Your task to perform on an android device: turn on translation in the chrome app Image 0: 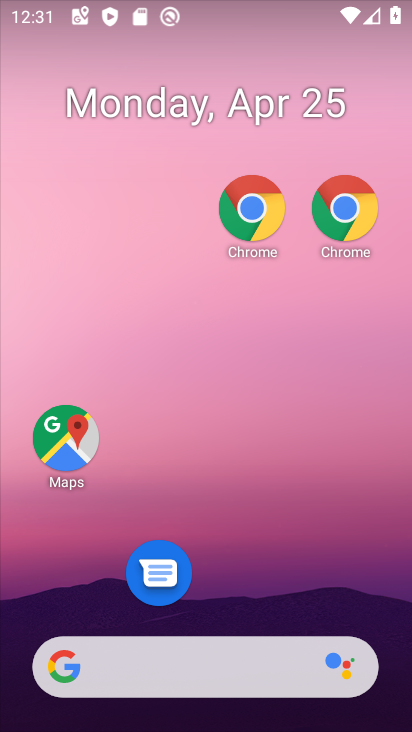
Step 0: drag from (287, 26) to (255, 4)
Your task to perform on an android device: turn on translation in the chrome app Image 1: 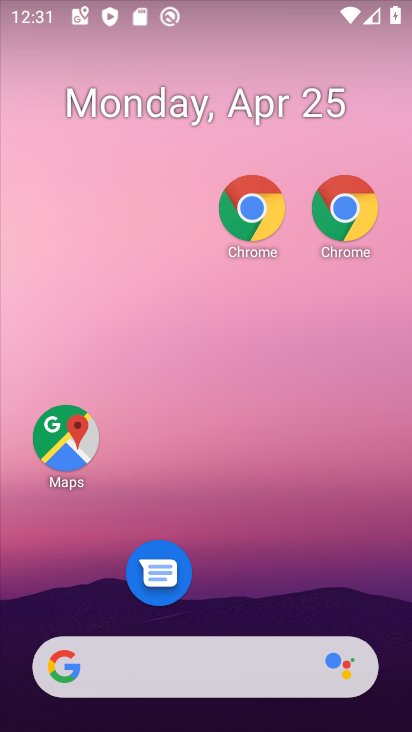
Step 1: drag from (299, 573) to (161, 94)
Your task to perform on an android device: turn on translation in the chrome app Image 2: 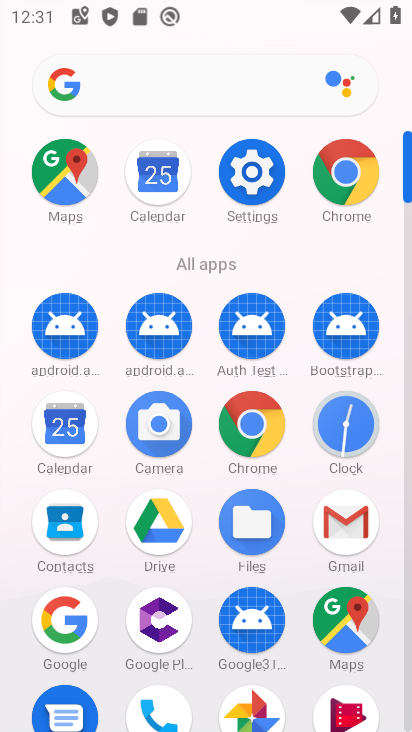
Step 2: click (342, 178)
Your task to perform on an android device: turn on translation in the chrome app Image 3: 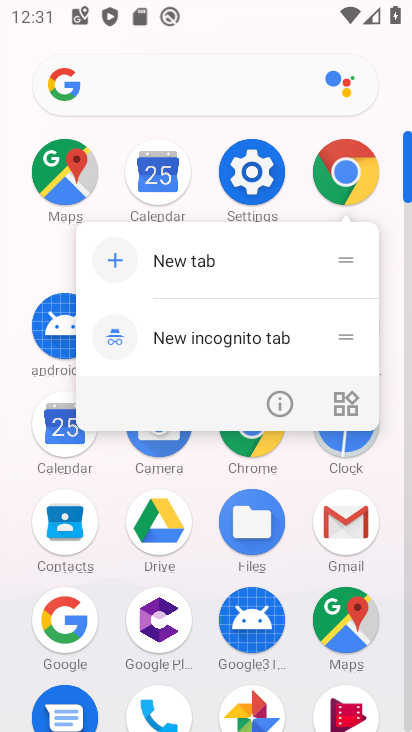
Step 3: click (153, 263)
Your task to perform on an android device: turn on translation in the chrome app Image 4: 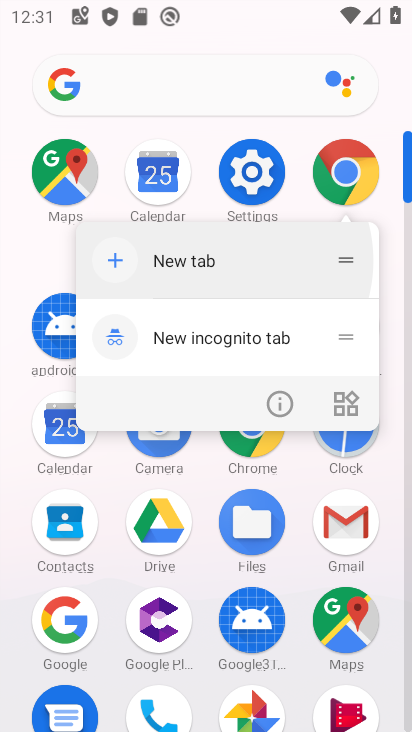
Step 4: click (159, 267)
Your task to perform on an android device: turn on translation in the chrome app Image 5: 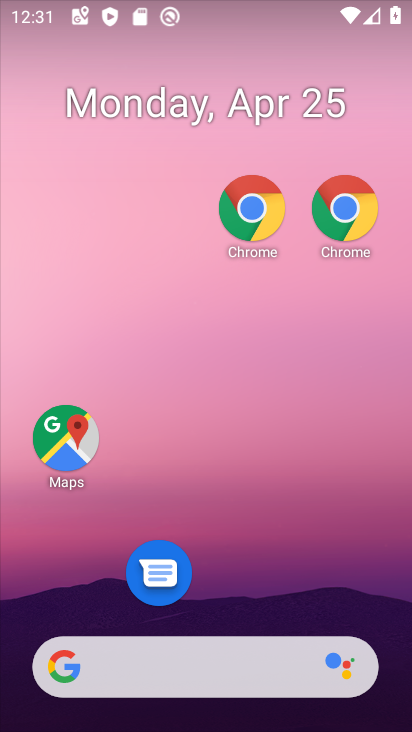
Step 5: drag from (275, 592) to (182, 158)
Your task to perform on an android device: turn on translation in the chrome app Image 6: 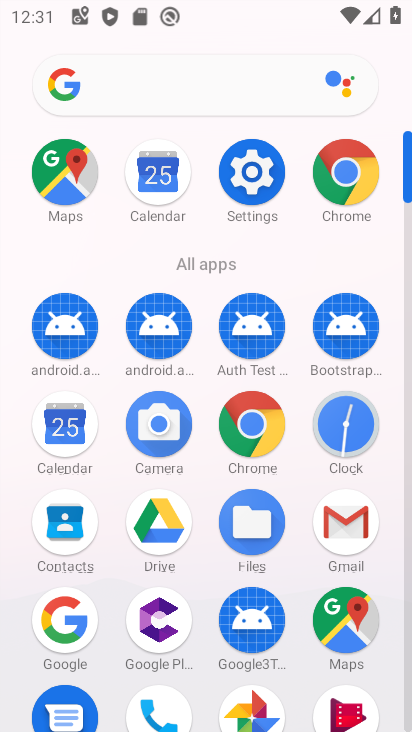
Step 6: click (344, 177)
Your task to perform on an android device: turn on translation in the chrome app Image 7: 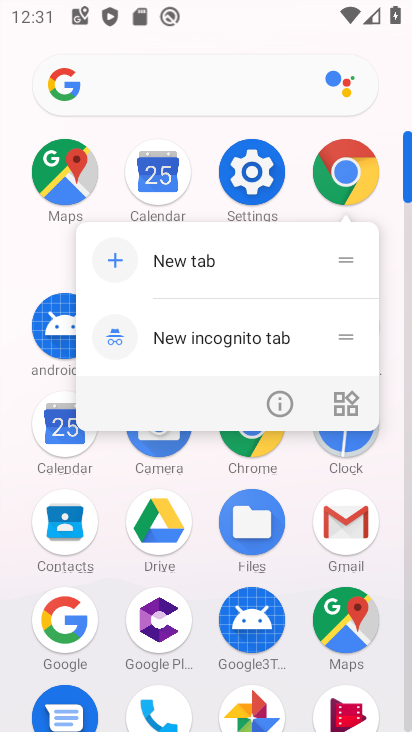
Step 7: click (344, 177)
Your task to perform on an android device: turn on translation in the chrome app Image 8: 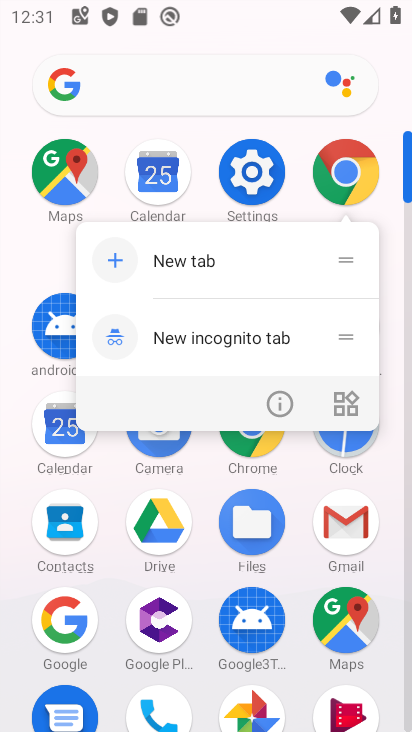
Step 8: click (345, 177)
Your task to perform on an android device: turn on translation in the chrome app Image 9: 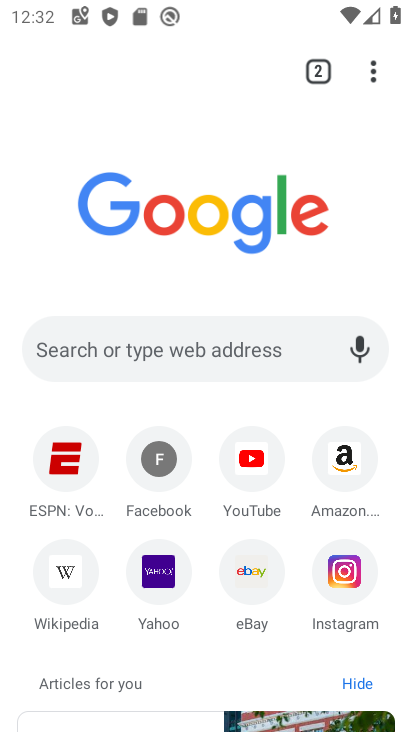
Step 9: drag from (370, 64) to (115, 607)
Your task to perform on an android device: turn on translation in the chrome app Image 10: 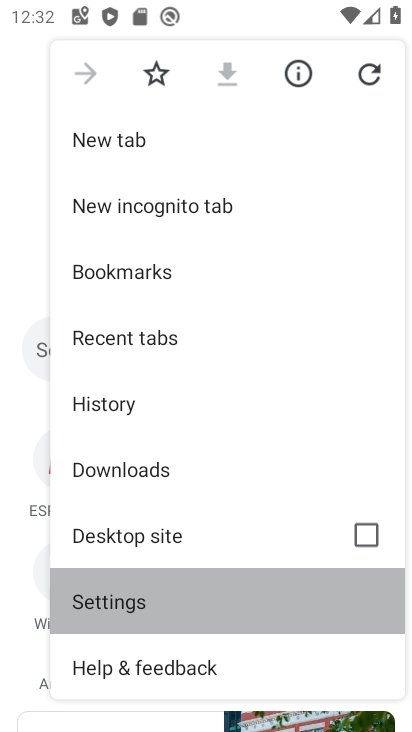
Step 10: click (125, 600)
Your task to perform on an android device: turn on translation in the chrome app Image 11: 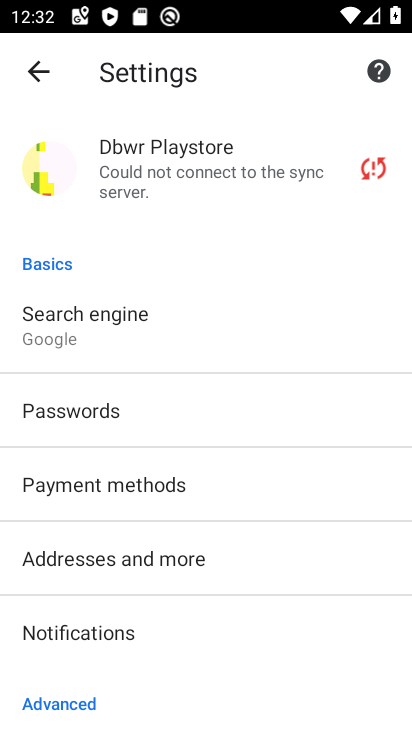
Step 11: drag from (179, 550) to (181, 137)
Your task to perform on an android device: turn on translation in the chrome app Image 12: 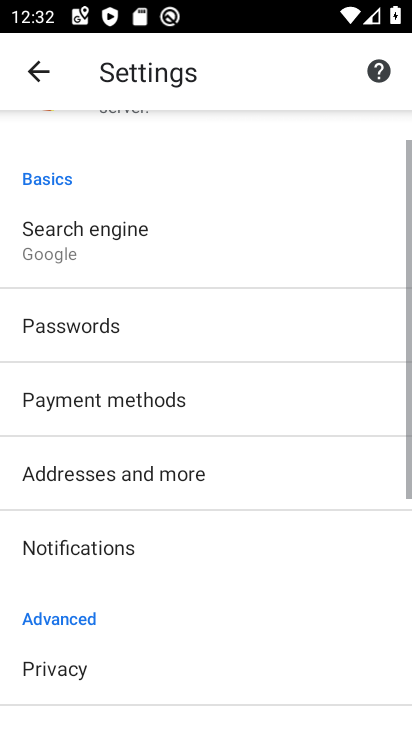
Step 12: drag from (186, 339) to (172, 119)
Your task to perform on an android device: turn on translation in the chrome app Image 13: 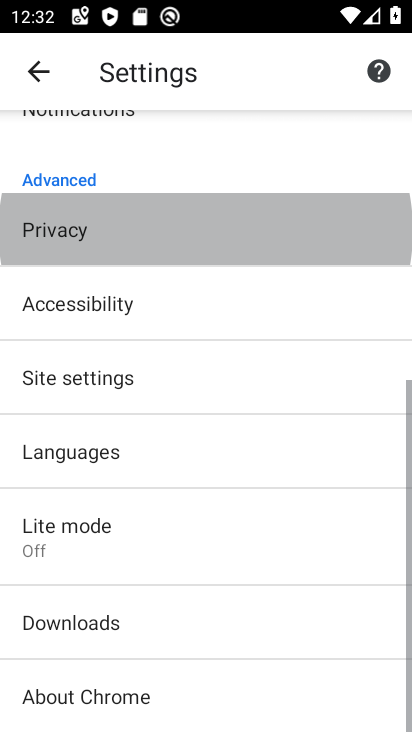
Step 13: drag from (152, 269) to (158, 61)
Your task to perform on an android device: turn on translation in the chrome app Image 14: 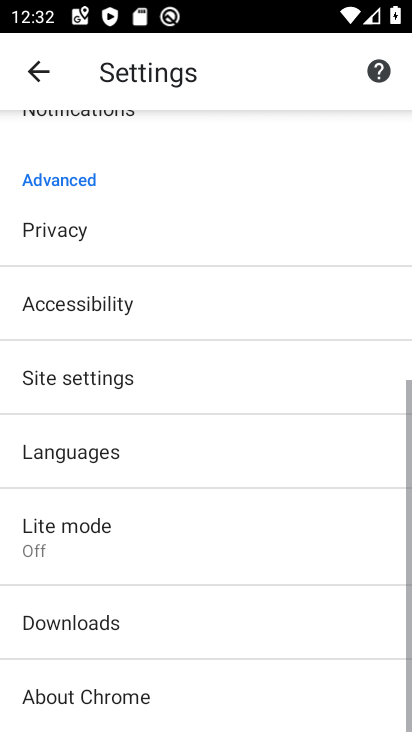
Step 14: drag from (100, 498) to (216, 50)
Your task to perform on an android device: turn on translation in the chrome app Image 15: 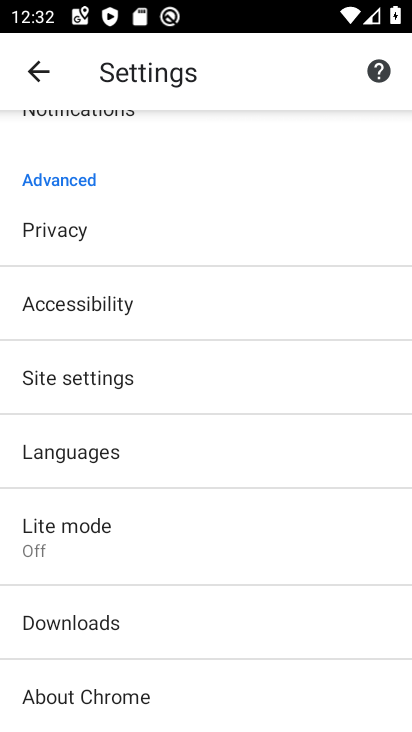
Step 15: click (62, 451)
Your task to perform on an android device: turn on translation in the chrome app Image 16: 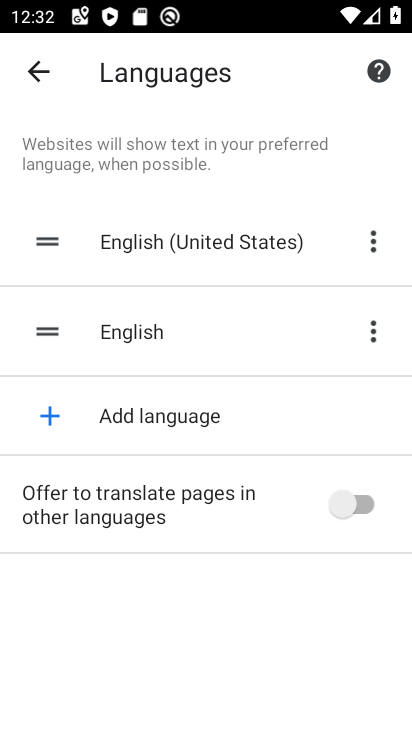
Step 16: click (70, 454)
Your task to perform on an android device: turn on translation in the chrome app Image 17: 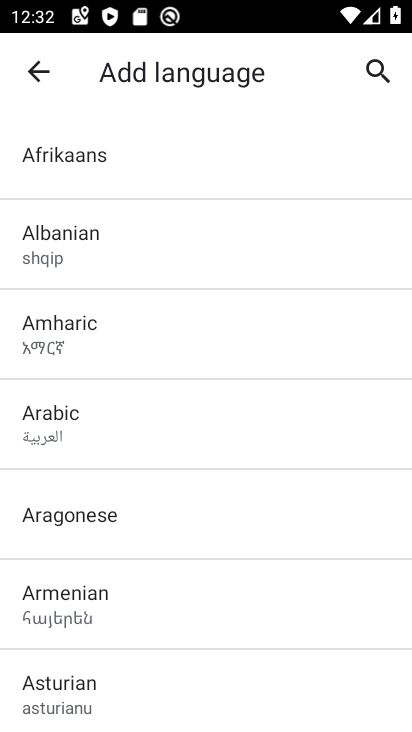
Step 17: click (31, 67)
Your task to perform on an android device: turn on translation in the chrome app Image 18: 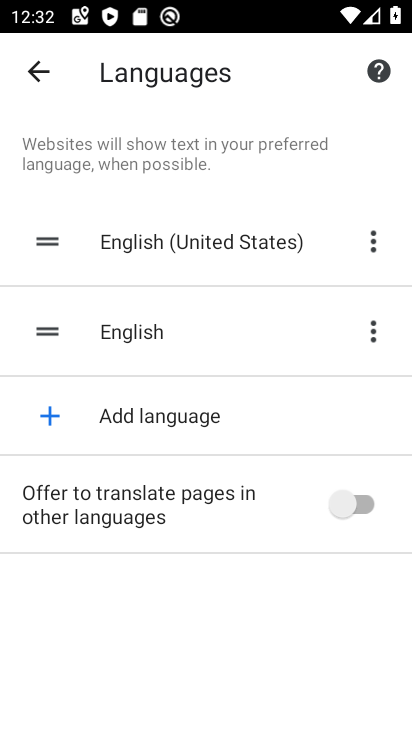
Step 18: click (35, 75)
Your task to perform on an android device: turn on translation in the chrome app Image 19: 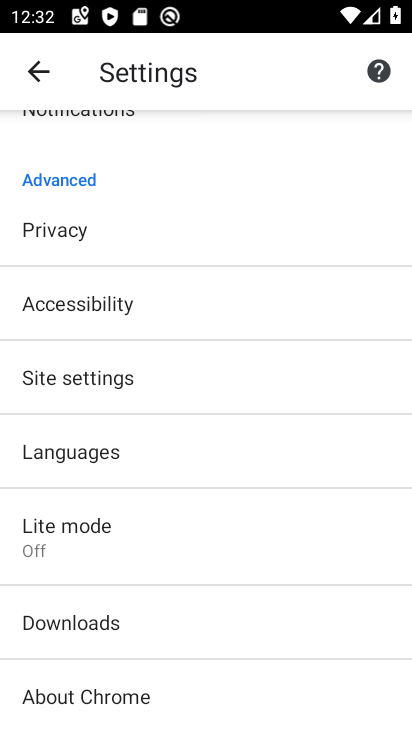
Step 19: click (65, 448)
Your task to perform on an android device: turn on translation in the chrome app Image 20: 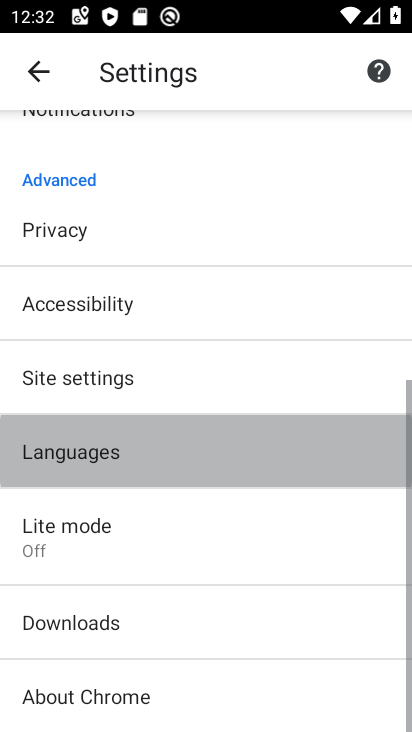
Step 20: click (65, 449)
Your task to perform on an android device: turn on translation in the chrome app Image 21: 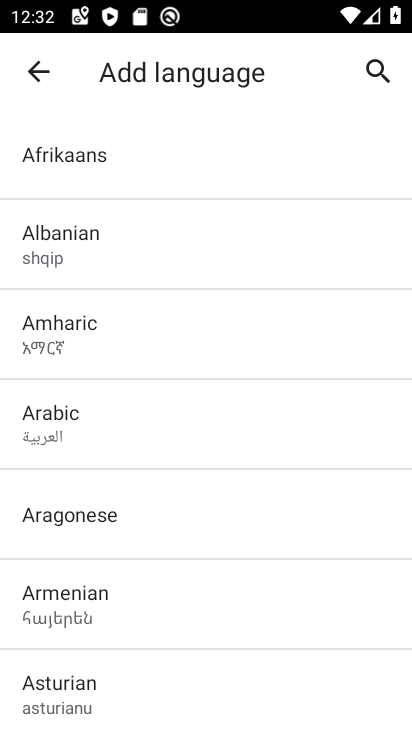
Step 21: click (36, 70)
Your task to perform on an android device: turn on translation in the chrome app Image 22: 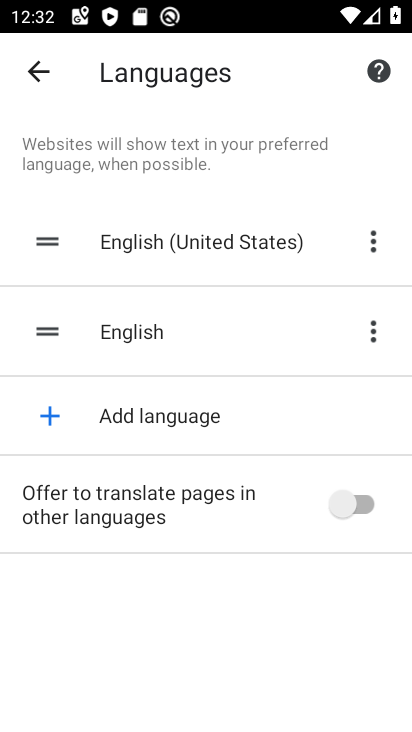
Step 22: click (344, 508)
Your task to perform on an android device: turn on translation in the chrome app Image 23: 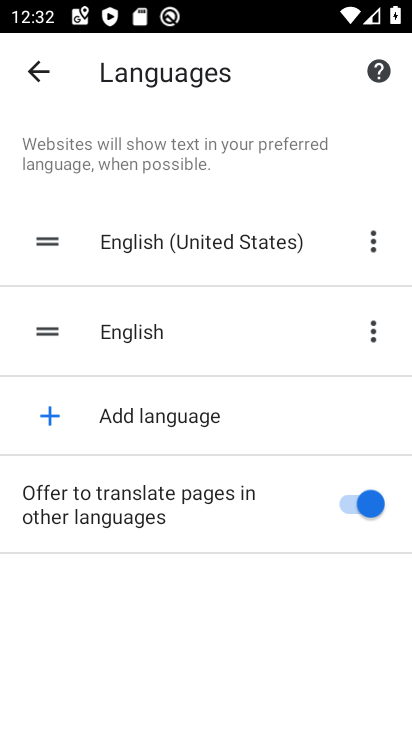
Step 23: task complete